Your task to perform on an android device: read, delete, or share a saved page in the chrome app Image 0: 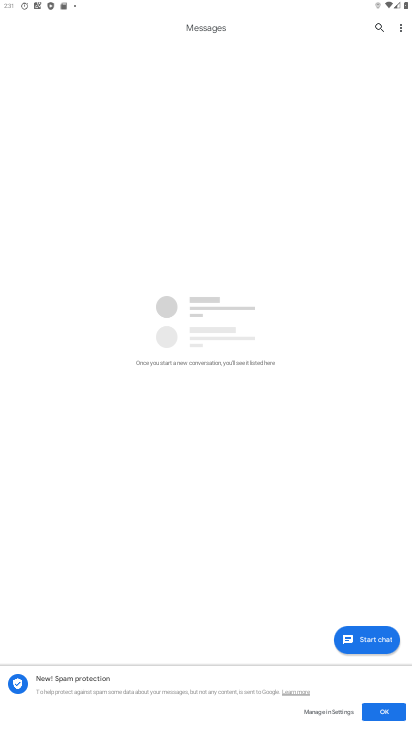
Step 0: drag from (237, 667) to (194, 41)
Your task to perform on an android device: read, delete, or share a saved page in the chrome app Image 1: 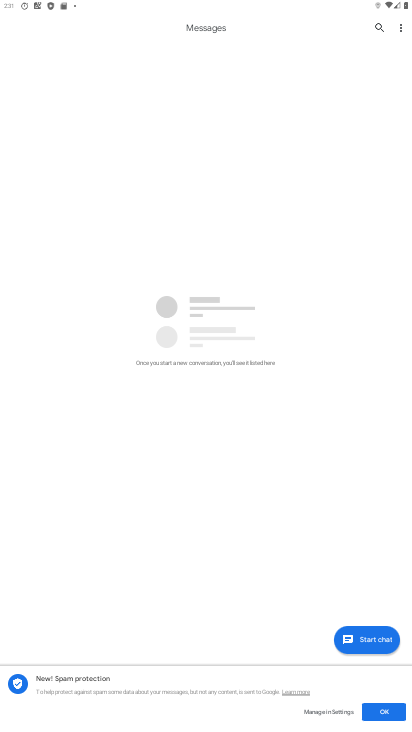
Step 1: press home button
Your task to perform on an android device: read, delete, or share a saved page in the chrome app Image 2: 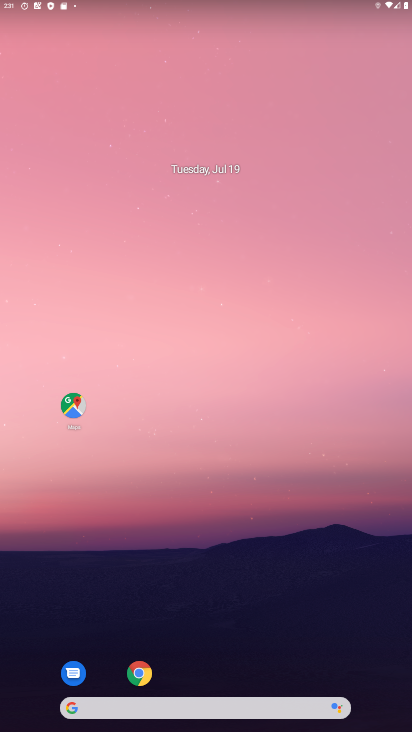
Step 2: drag from (196, 667) to (178, 228)
Your task to perform on an android device: read, delete, or share a saved page in the chrome app Image 3: 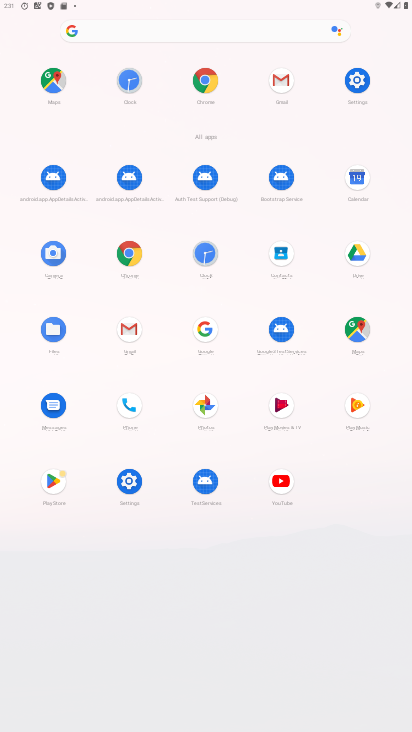
Step 3: click (131, 251)
Your task to perform on an android device: read, delete, or share a saved page in the chrome app Image 4: 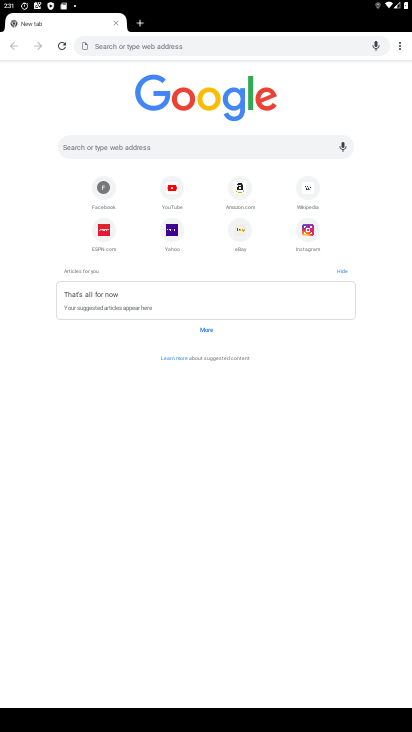
Step 4: click (400, 46)
Your task to perform on an android device: read, delete, or share a saved page in the chrome app Image 5: 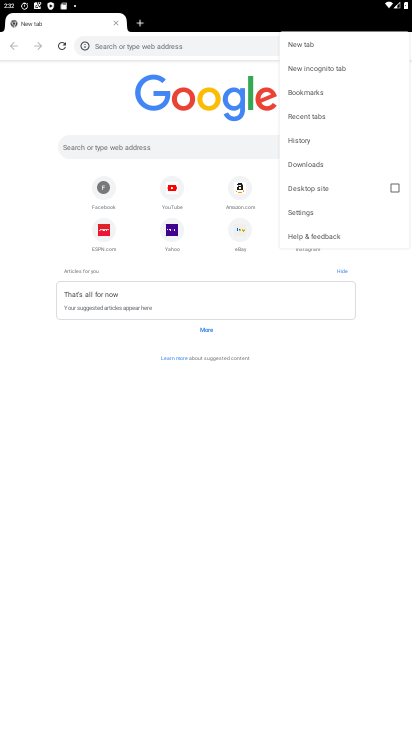
Step 5: click (317, 159)
Your task to perform on an android device: read, delete, or share a saved page in the chrome app Image 6: 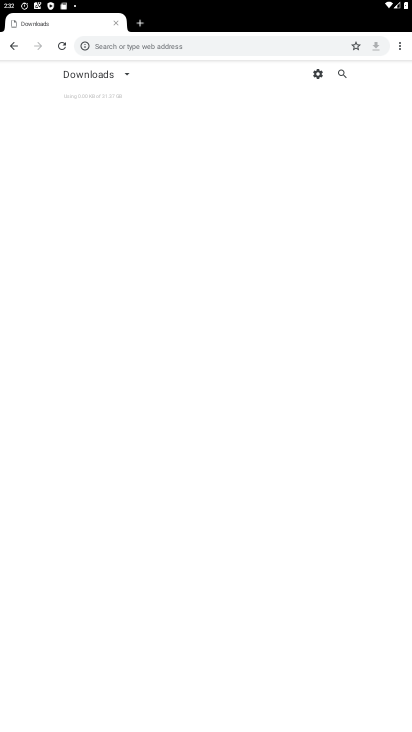
Step 6: task complete